Your task to perform on an android device: move an email to a new category in the gmail app Image 0: 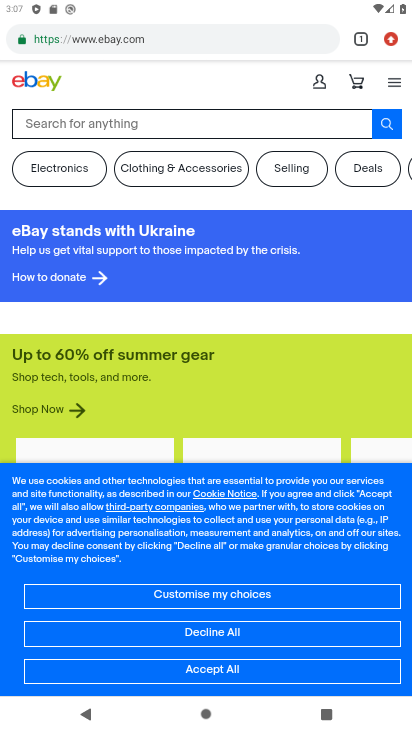
Step 0: press home button
Your task to perform on an android device: move an email to a new category in the gmail app Image 1: 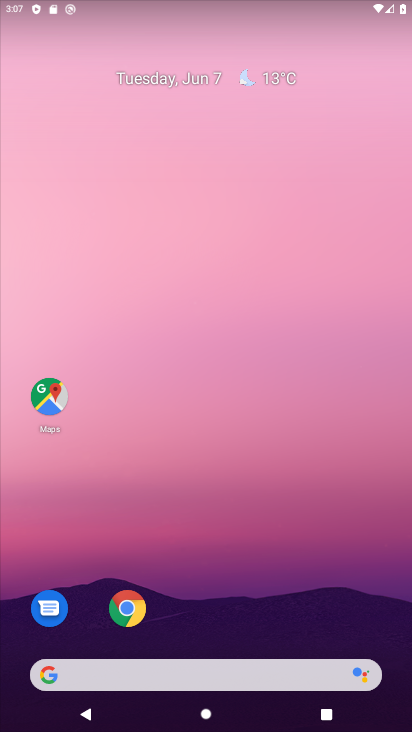
Step 1: drag from (166, 624) to (296, 176)
Your task to perform on an android device: move an email to a new category in the gmail app Image 2: 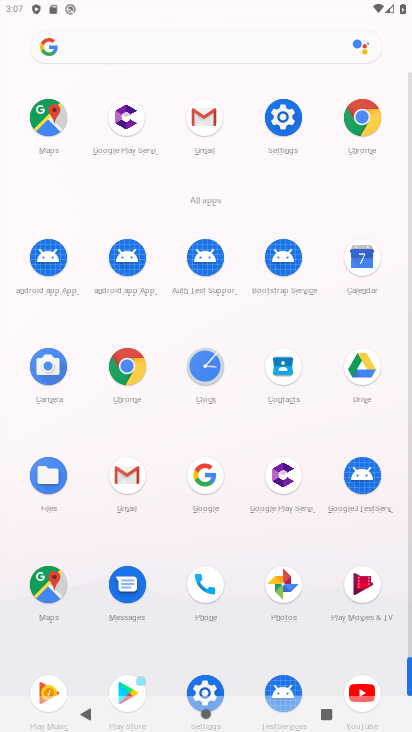
Step 2: click (112, 458)
Your task to perform on an android device: move an email to a new category in the gmail app Image 3: 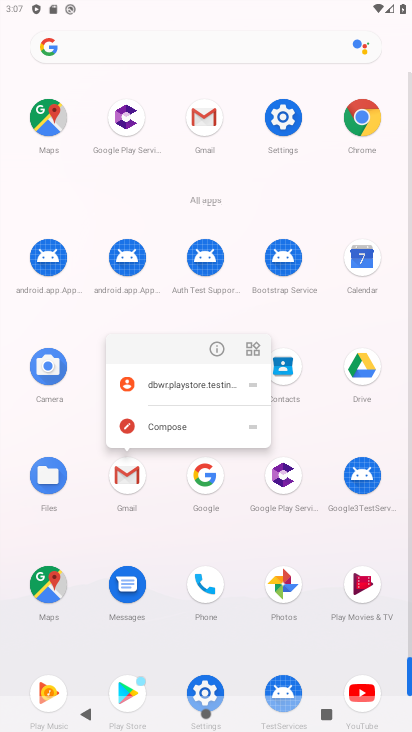
Step 3: click (125, 474)
Your task to perform on an android device: move an email to a new category in the gmail app Image 4: 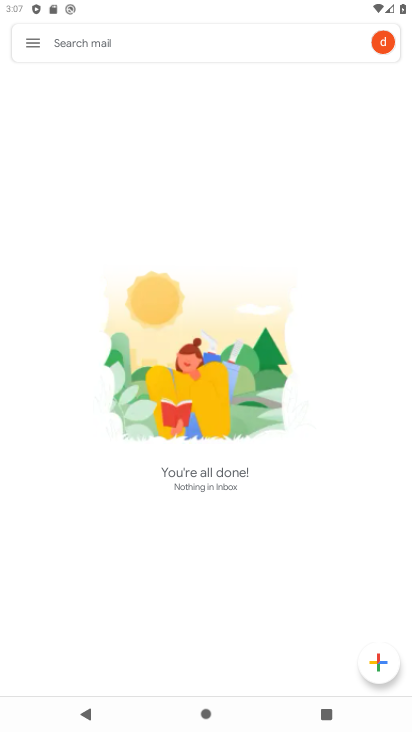
Step 4: click (38, 46)
Your task to perform on an android device: move an email to a new category in the gmail app Image 5: 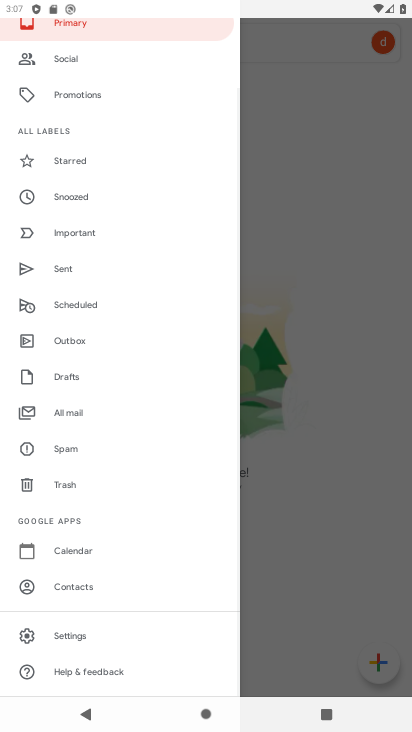
Step 5: click (99, 410)
Your task to perform on an android device: move an email to a new category in the gmail app Image 6: 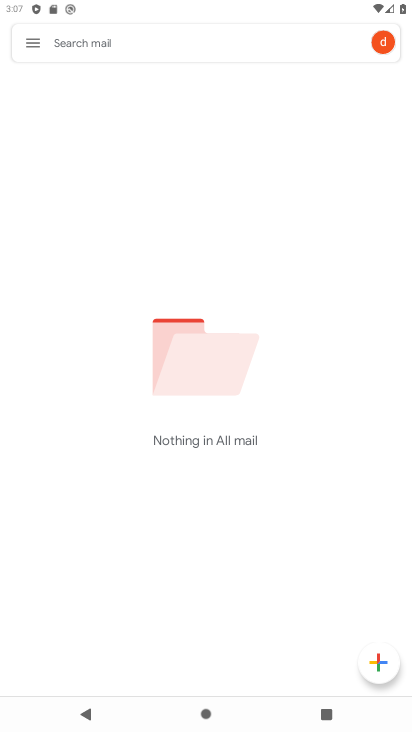
Step 6: task complete